Your task to perform on an android device: Go to ESPN.com Image 0: 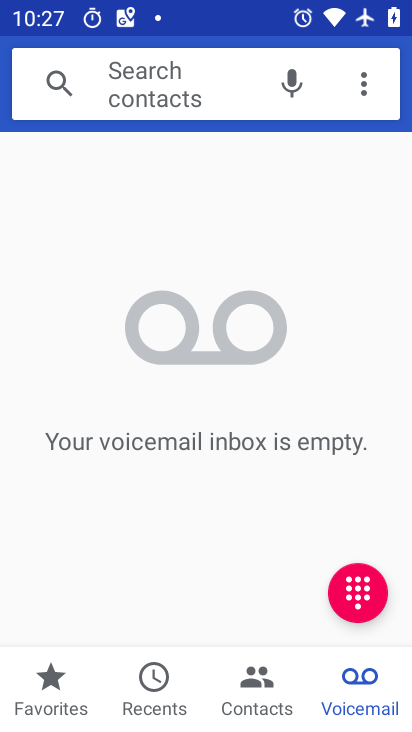
Step 0: press home button
Your task to perform on an android device: Go to ESPN.com Image 1: 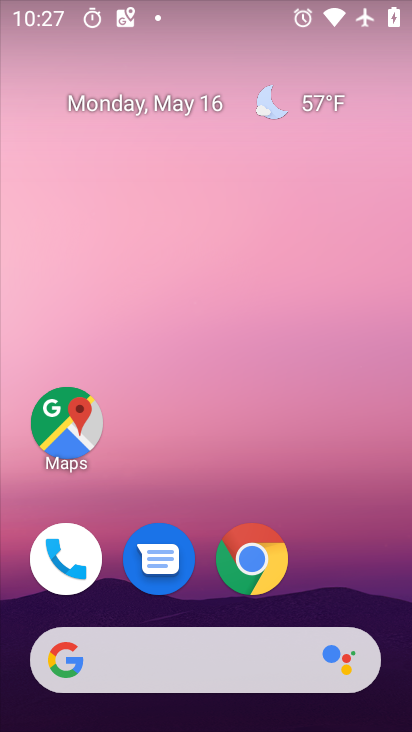
Step 1: click (255, 556)
Your task to perform on an android device: Go to ESPN.com Image 2: 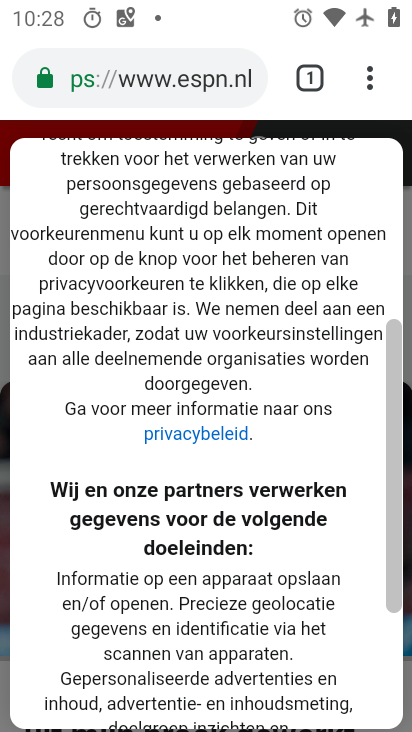
Step 2: task complete